Your task to perform on an android device: toggle data saver in the chrome app Image 0: 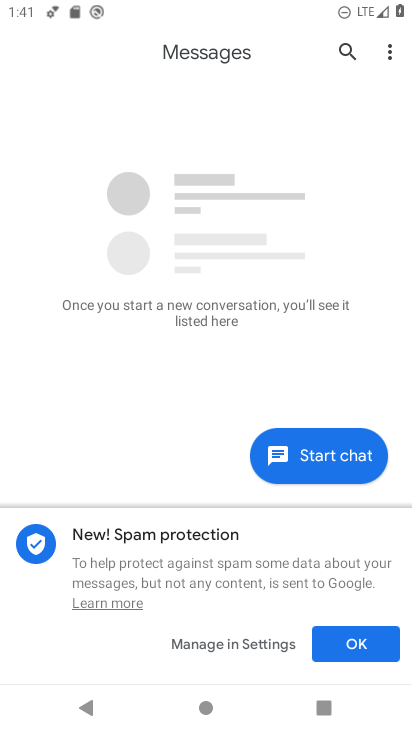
Step 0: press home button
Your task to perform on an android device: toggle data saver in the chrome app Image 1: 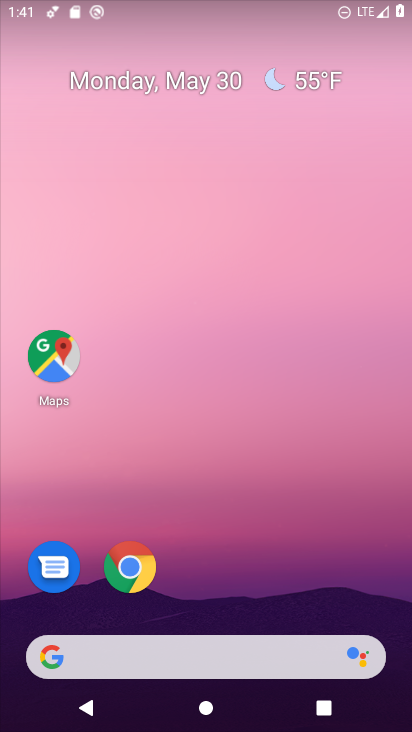
Step 1: click (134, 567)
Your task to perform on an android device: toggle data saver in the chrome app Image 2: 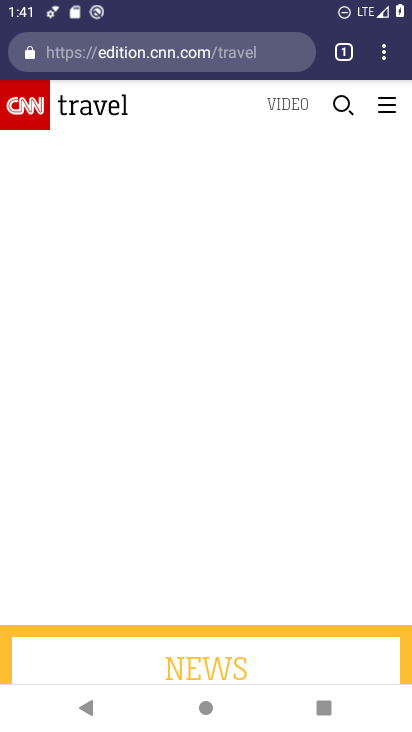
Step 2: click (383, 57)
Your task to perform on an android device: toggle data saver in the chrome app Image 3: 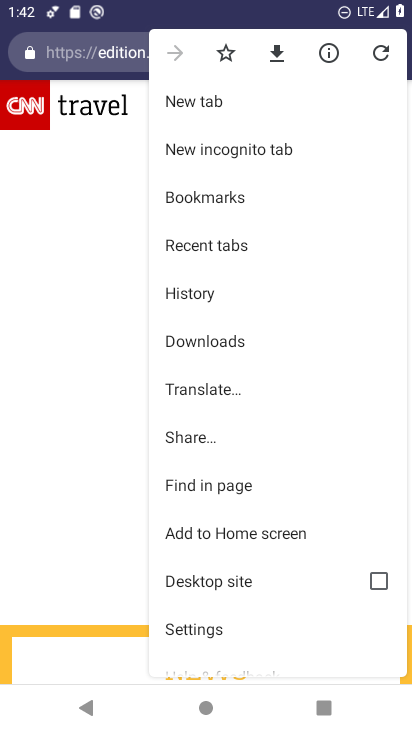
Step 3: click (227, 625)
Your task to perform on an android device: toggle data saver in the chrome app Image 4: 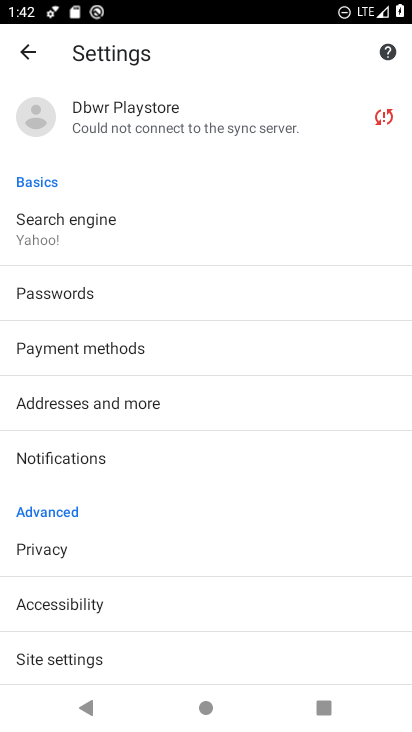
Step 4: drag from (154, 644) to (179, 211)
Your task to perform on an android device: toggle data saver in the chrome app Image 5: 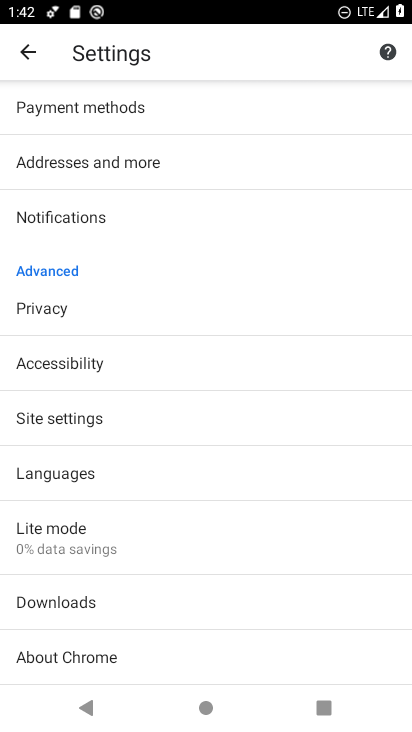
Step 5: click (106, 527)
Your task to perform on an android device: toggle data saver in the chrome app Image 6: 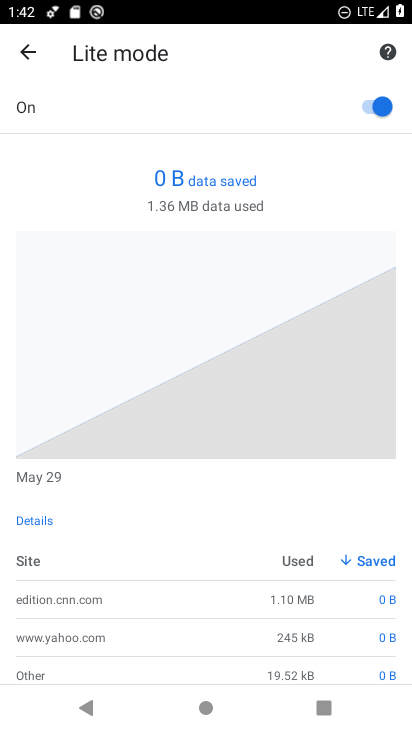
Step 6: click (369, 102)
Your task to perform on an android device: toggle data saver in the chrome app Image 7: 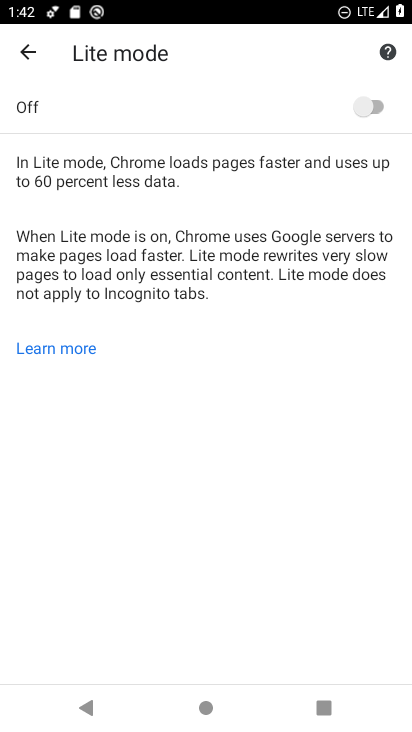
Step 7: task complete